Your task to perform on an android device: Go to internet settings Image 0: 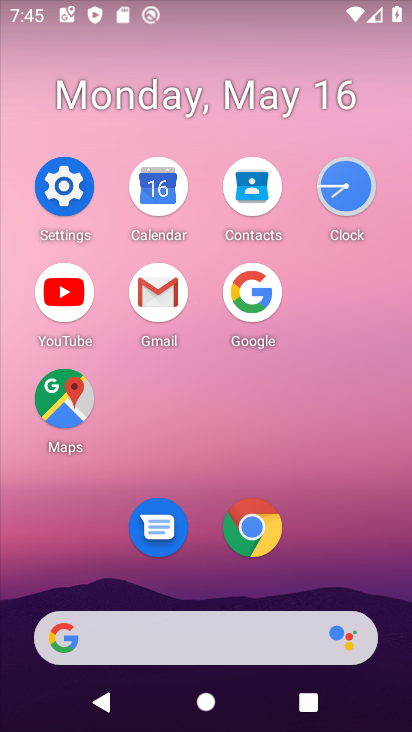
Step 0: click (88, 184)
Your task to perform on an android device: Go to internet settings Image 1: 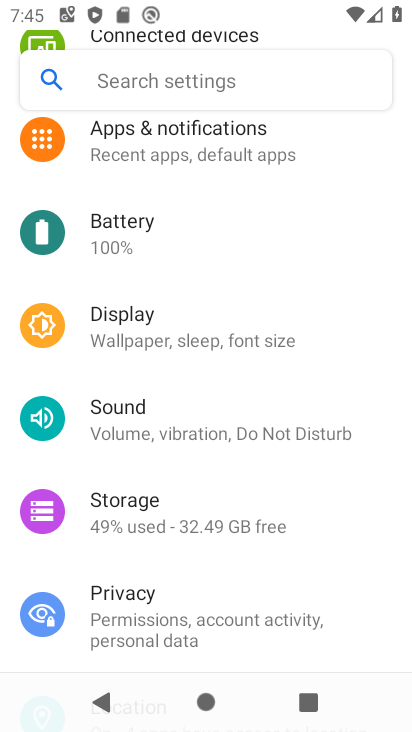
Step 1: drag from (293, 225) to (266, 519)
Your task to perform on an android device: Go to internet settings Image 2: 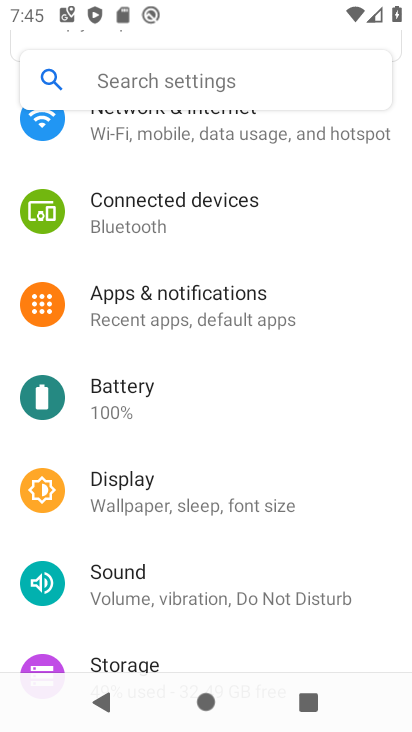
Step 2: drag from (305, 208) to (312, 517)
Your task to perform on an android device: Go to internet settings Image 3: 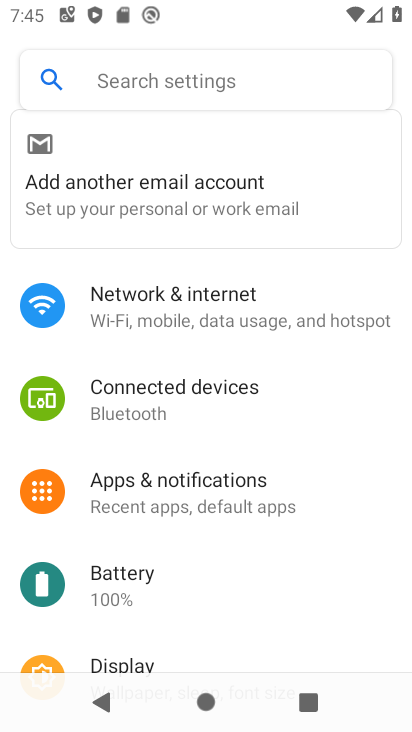
Step 3: click (224, 302)
Your task to perform on an android device: Go to internet settings Image 4: 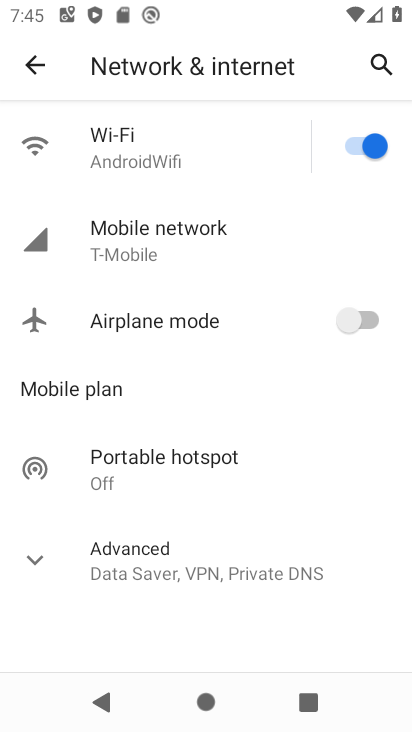
Step 4: click (204, 246)
Your task to perform on an android device: Go to internet settings Image 5: 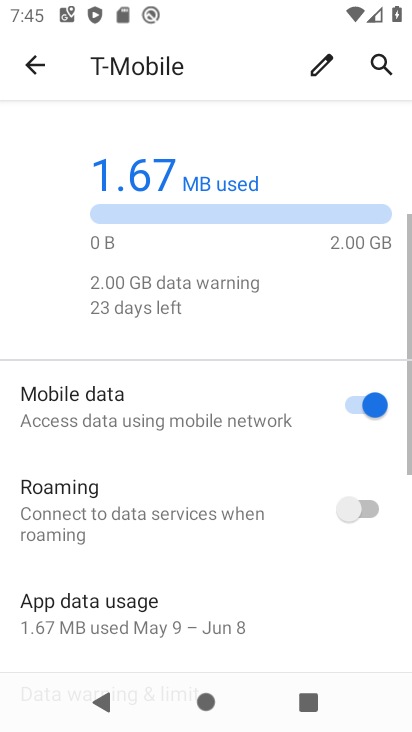
Step 5: task complete